Your task to perform on an android device: When is my next appointment? Image 0: 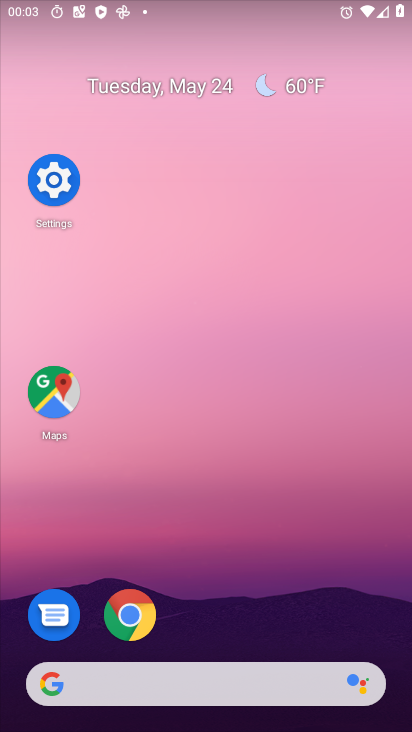
Step 0: drag from (212, 612) to (239, 119)
Your task to perform on an android device: When is my next appointment? Image 1: 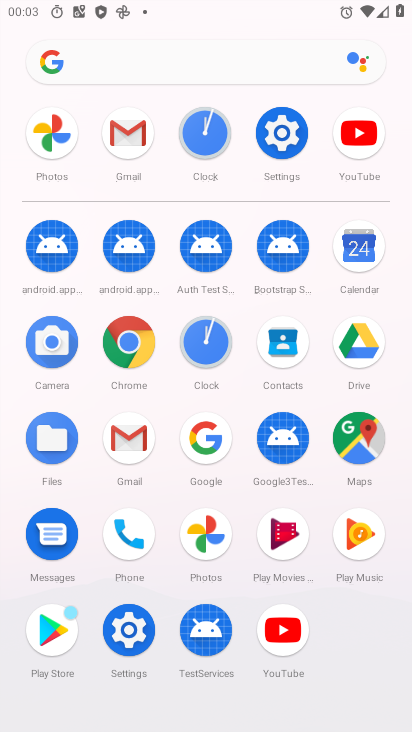
Step 1: click (359, 253)
Your task to perform on an android device: When is my next appointment? Image 2: 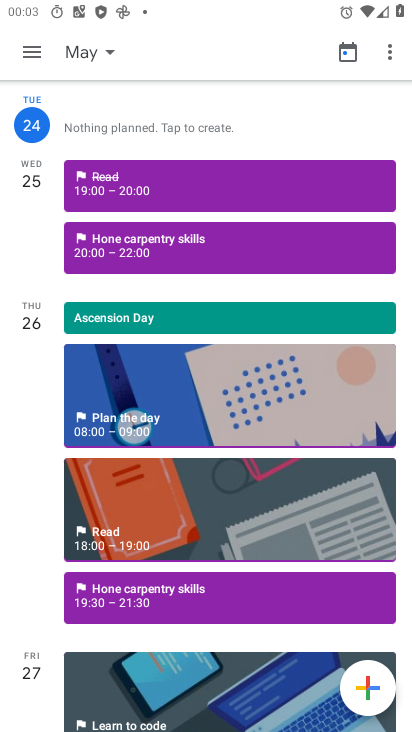
Step 2: click (110, 56)
Your task to perform on an android device: When is my next appointment? Image 3: 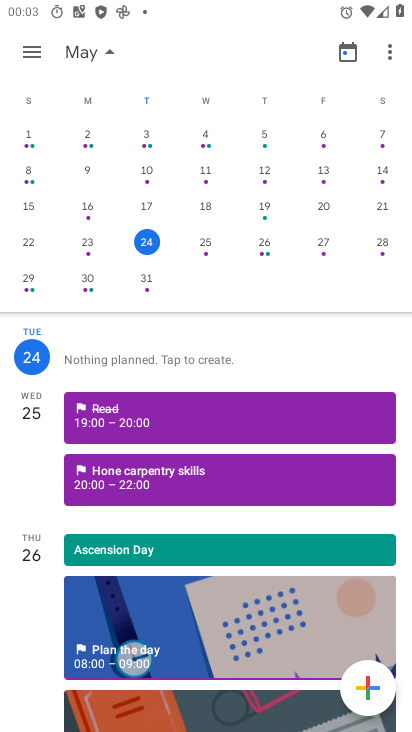
Step 3: click (326, 245)
Your task to perform on an android device: When is my next appointment? Image 4: 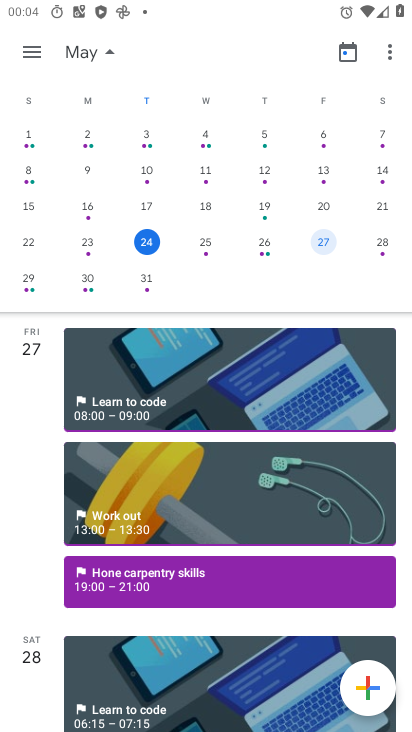
Step 4: task complete